Your task to perform on an android device: toggle data saver in the chrome app Image 0: 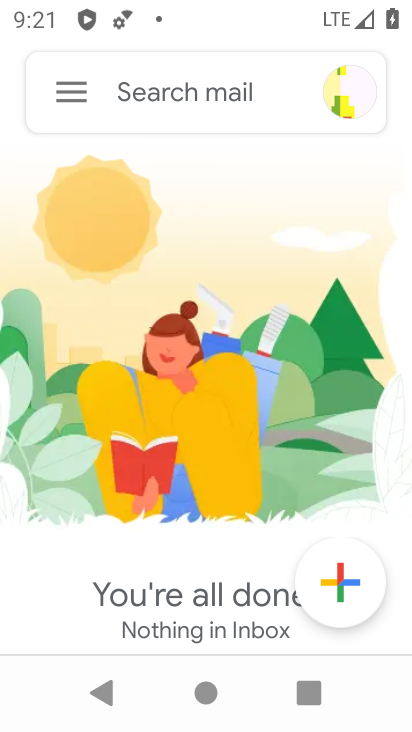
Step 0: press home button
Your task to perform on an android device: toggle data saver in the chrome app Image 1: 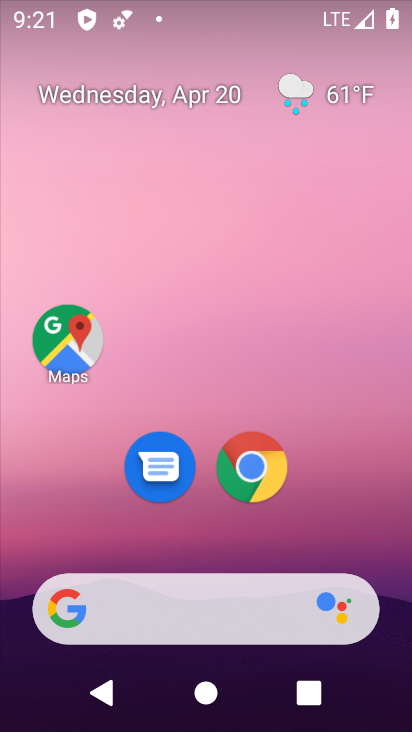
Step 1: drag from (318, 526) to (384, 121)
Your task to perform on an android device: toggle data saver in the chrome app Image 2: 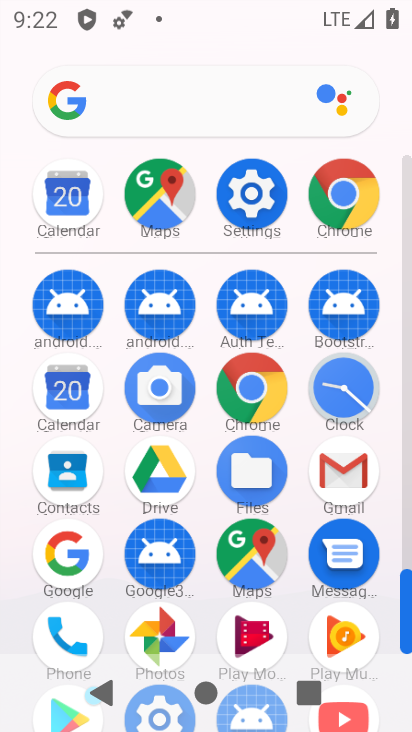
Step 2: click (248, 379)
Your task to perform on an android device: toggle data saver in the chrome app Image 3: 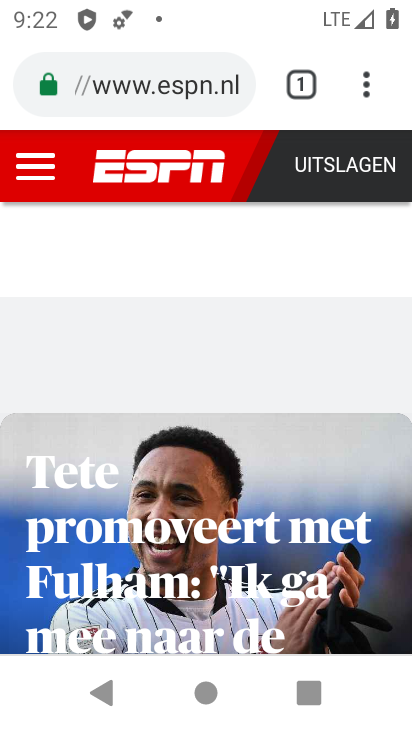
Step 3: drag from (361, 89) to (142, 507)
Your task to perform on an android device: toggle data saver in the chrome app Image 4: 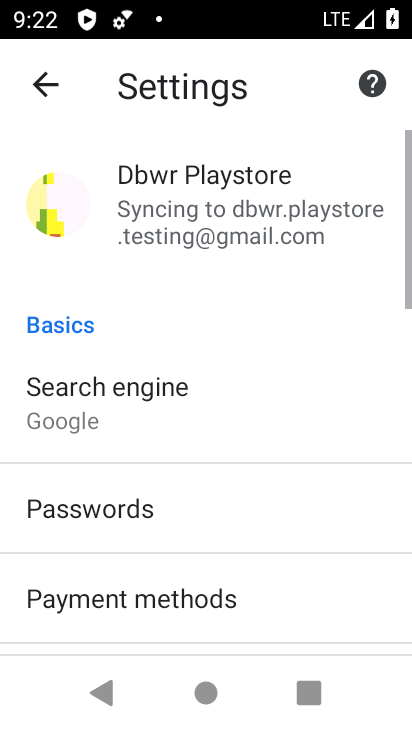
Step 4: drag from (226, 560) to (254, 181)
Your task to perform on an android device: toggle data saver in the chrome app Image 5: 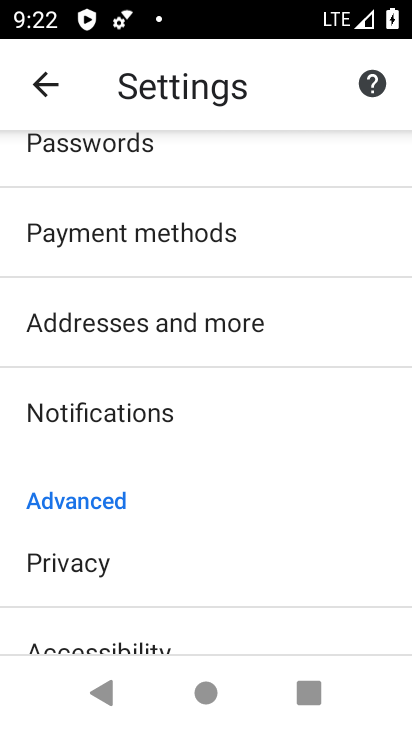
Step 5: drag from (177, 504) to (275, 122)
Your task to perform on an android device: toggle data saver in the chrome app Image 6: 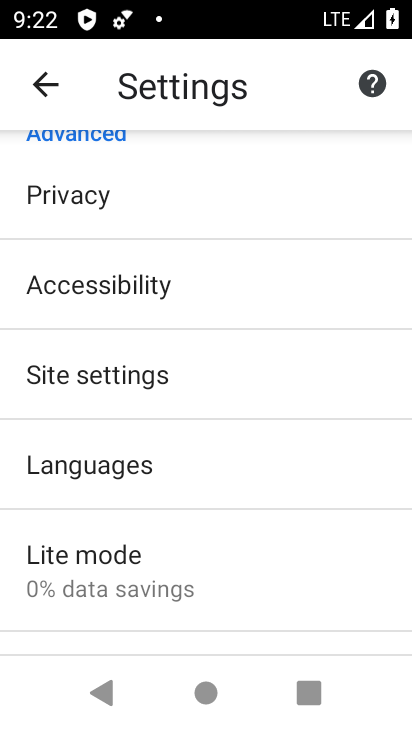
Step 6: click (129, 543)
Your task to perform on an android device: toggle data saver in the chrome app Image 7: 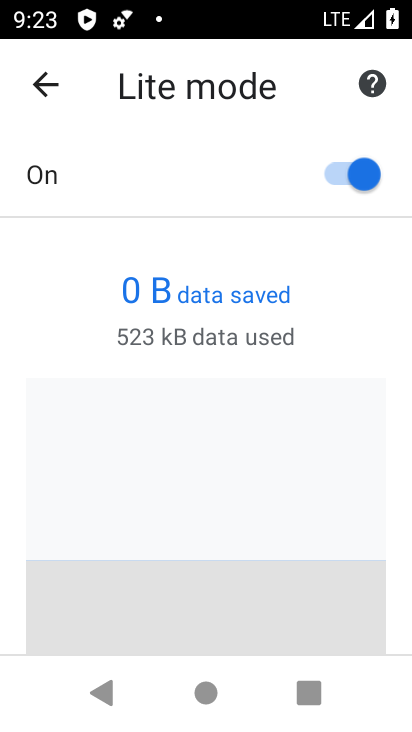
Step 7: click (336, 179)
Your task to perform on an android device: toggle data saver in the chrome app Image 8: 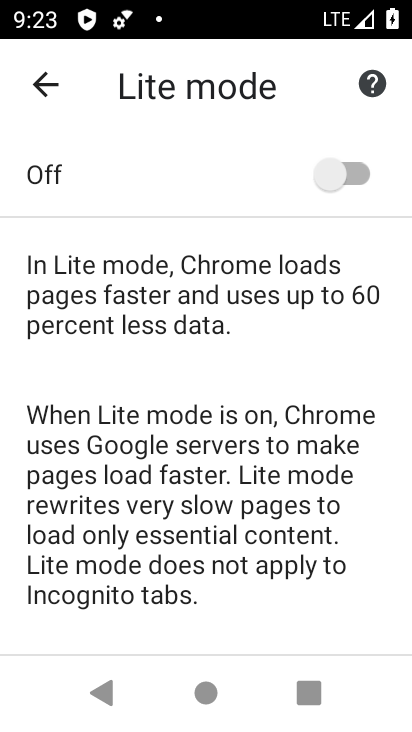
Step 8: task complete